Your task to perform on an android device: Show me productivity apps on the Play Store Image 0: 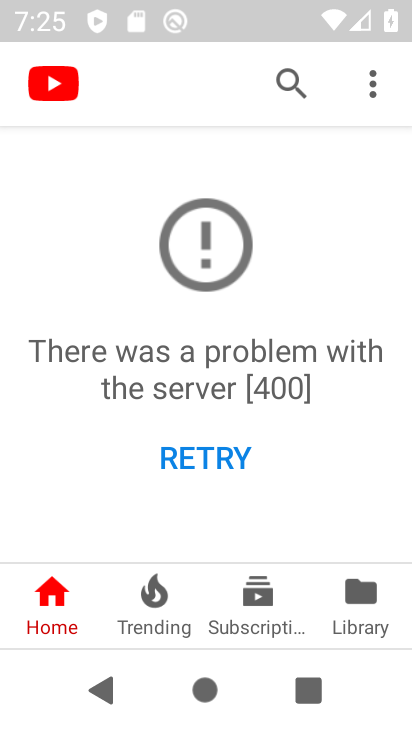
Step 0: press home button
Your task to perform on an android device: Show me productivity apps on the Play Store Image 1: 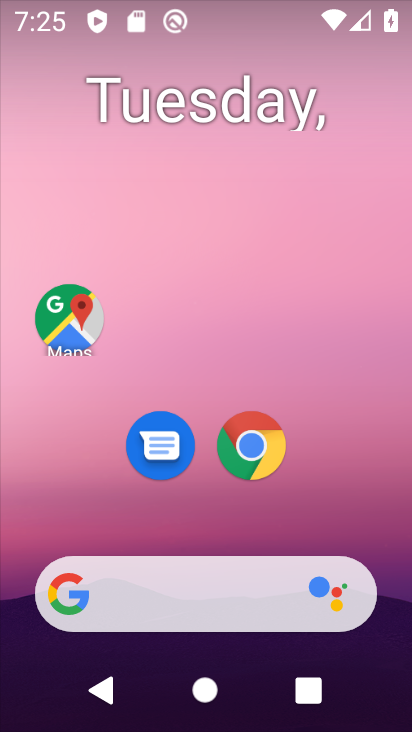
Step 1: drag from (307, 517) to (209, 29)
Your task to perform on an android device: Show me productivity apps on the Play Store Image 2: 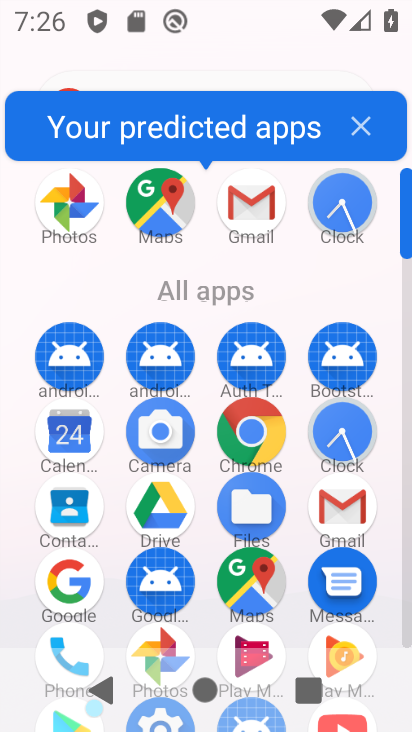
Step 2: click (360, 132)
Your task to perform on an android device: Show me productivity apps on the Play Store Image 3: 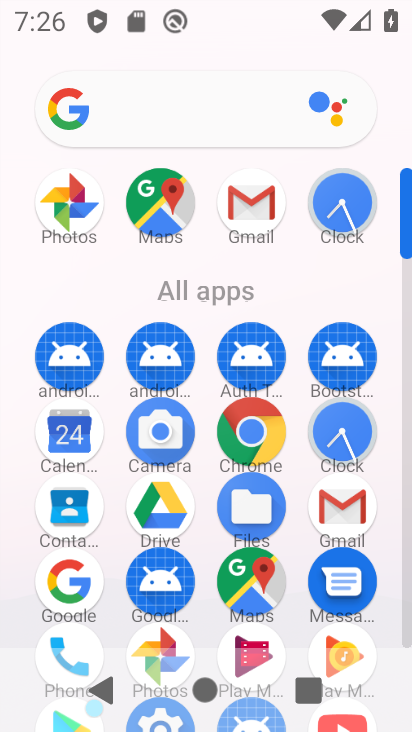
Step 3: drag from (209, 616) to (237, 77)
Your task to perform on an android device: Show me productivity apps on the Play Store Image 4: 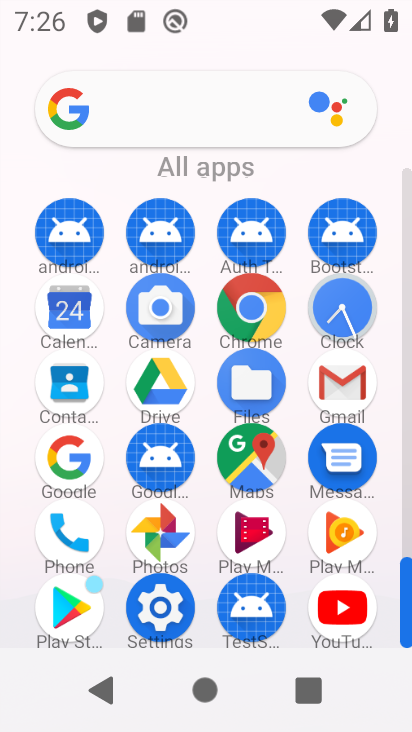
Step 4: click (61, 605)
Your task to perform on an android device: Show me productivity apps on the Play Store Image 5: 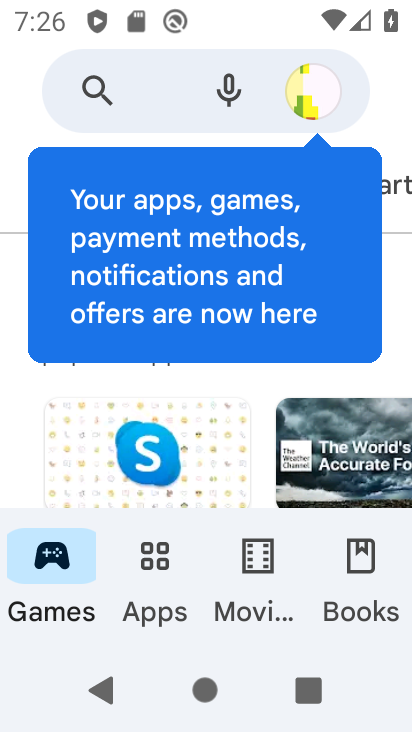
Step 5: click (401, 176)
Your task to perform on an android device: Show me productivity apps on the Play Store Image 6: 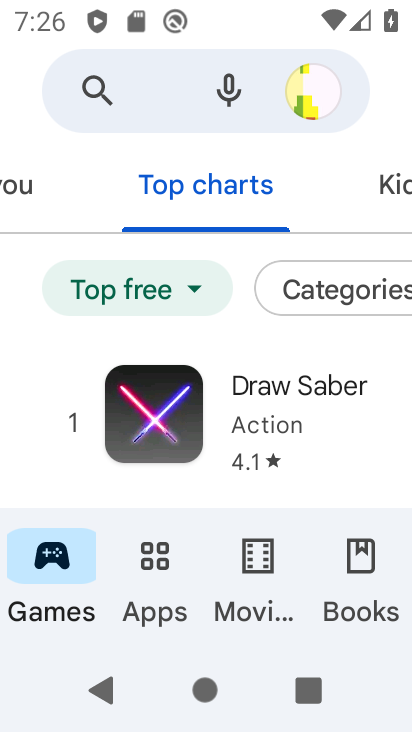
Step 6: drag from (383, 192) to (2, 198)
Your task to perform on an android device: Show me productivity apps on the Play Store Image 7: 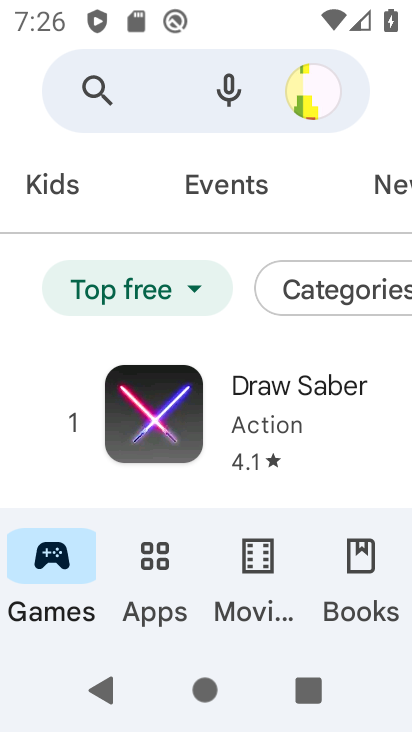
Step 7: drag from (283, 189) to (14, 157)
Your task to perform on an android device: Show me productivity apps on the Play Store Image 8: 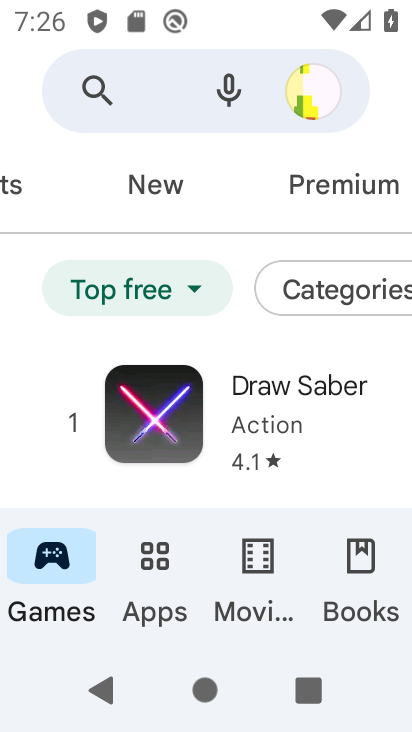
Step 8: drag from (352, 195) to (15, 154)
Your task to perform on an android device: Show me productivity apps on the Play Store Image 9: 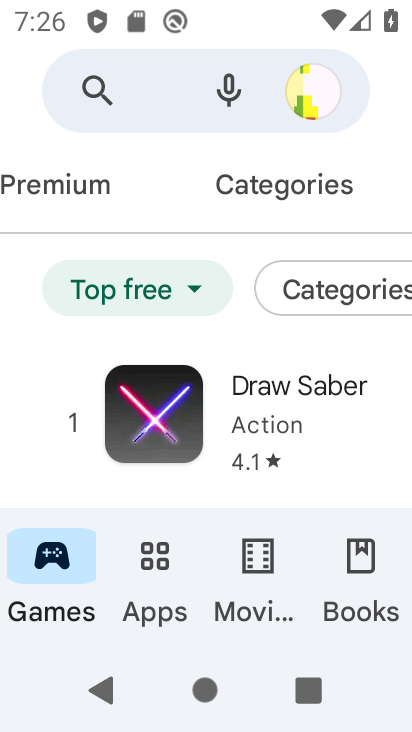
Step 9: drag from (327, 206) to (3, 159)
Your task to perform on an android device: Show me productivity apps on the Play Store Image 10: 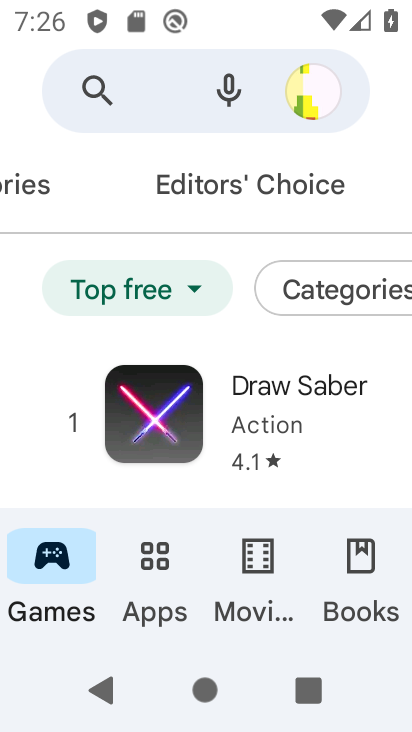
Step 10: drag from (332, 192) to (8, 183)
Your task to perform on an android device: Show me productivity apps on the Play Store Image 11: 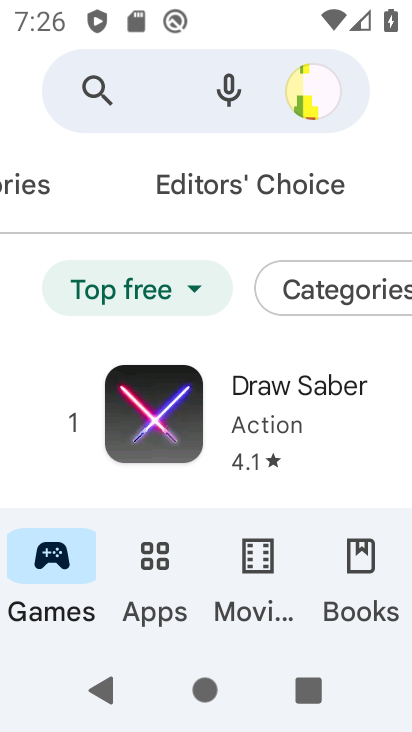
Step 11: drag from (52, 172) to (140, 190)
Your task to perform on an android device: Show me productivity apps on the Play Store Image 12: 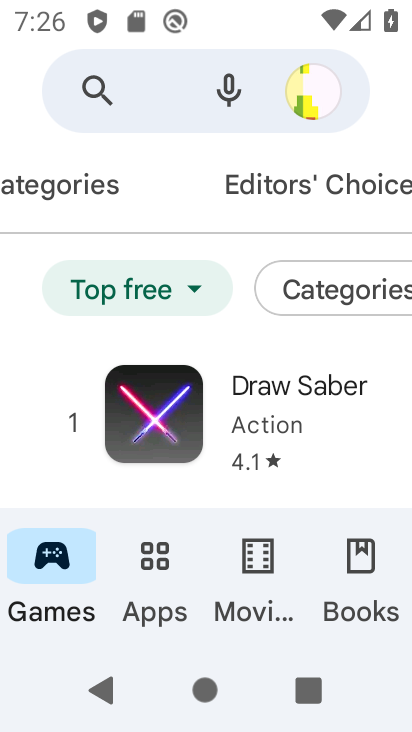
Step 12: click (28, 188)
Your task to perform on an android device: Show me productivity apps on the Play Store Image 13: 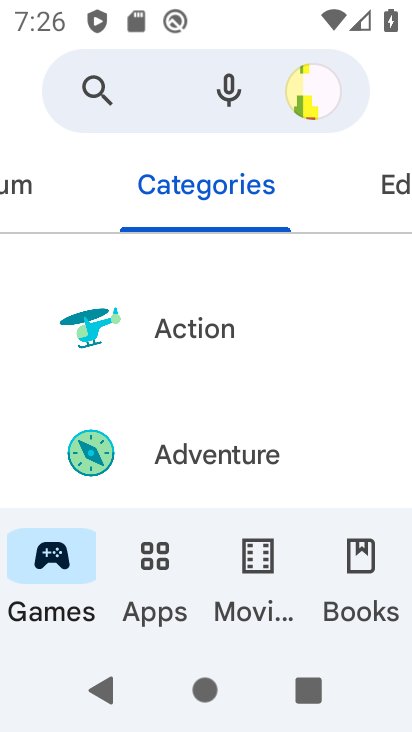
Step 13: click (166, 600)
Your task to perform on an android device: Show me productivity apps on the Play Store Image 14: 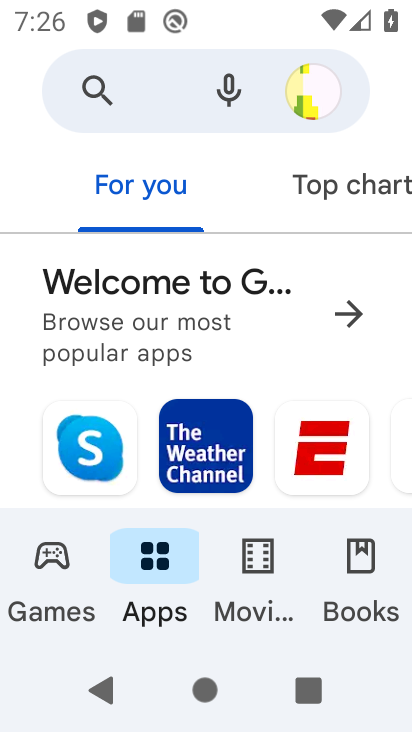
Step 14: drag from (319, 196) to (67, 185)
Your task to perform on an android device: Show me productivity apps on the Play Store Image 15: 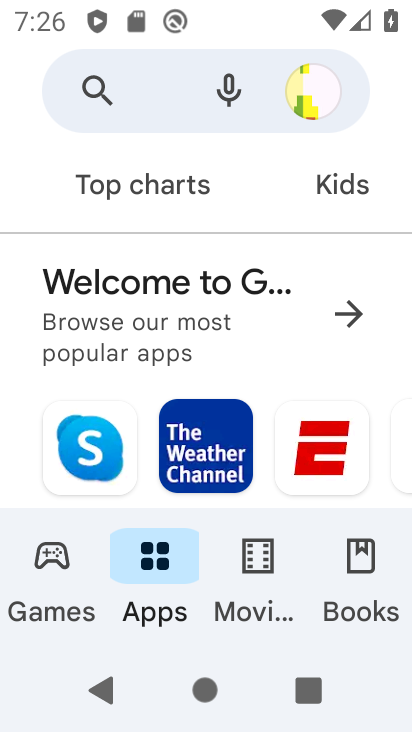
Step 15: drag from (294, 185) to (45, 185)
Your task to perform on an android device: Show me productivity apps on the Play Store Image 16: 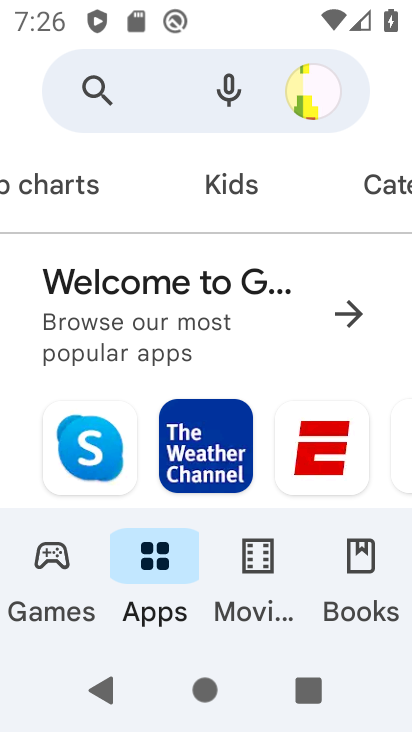
Step 16: drag from (313, 202) to (38, 213)
Your task to perform on an android device: Show me productivity apps on the Play Store Image 17: 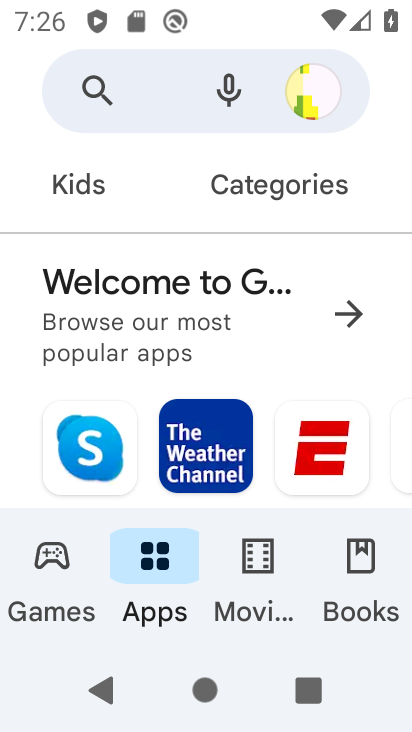
Step 17: click (276, 189)
Your task to perform on an android device: Show me productivity apps on the Play Store Image 18: 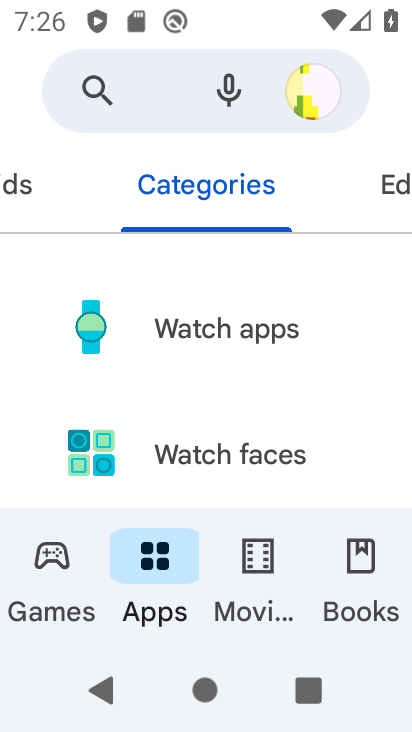
Step 18: drag from (202, 471) to (201, 250)
Your task to perform on an android device: Show me productivity apps on the Play Store Image 19: 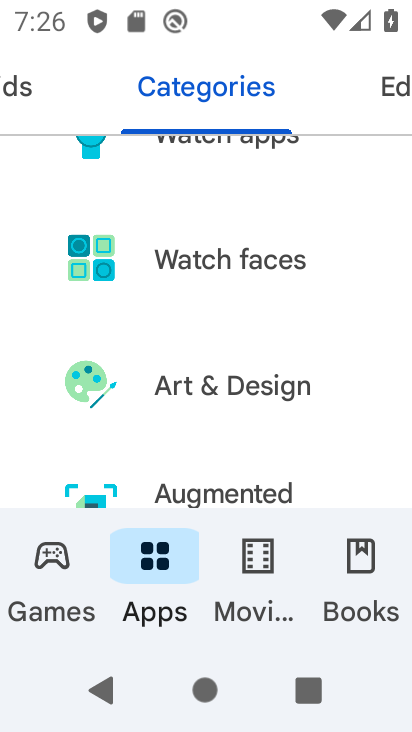
Step 19: drag from (214, 448) to (247, 233)
Your task to perform on an android device: Show me productivity apps on the Play Store Image 20: 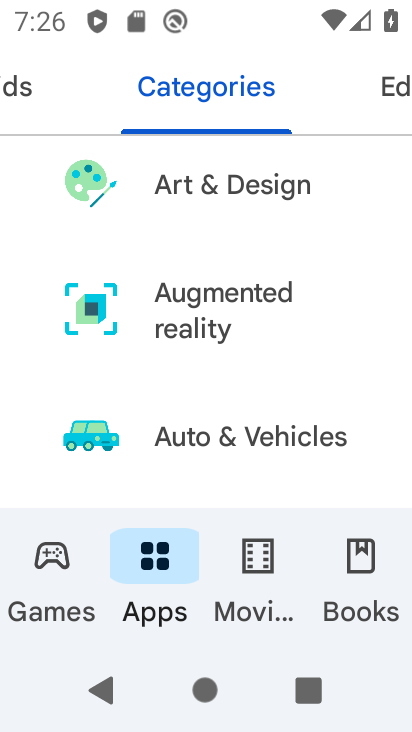
Step 20: drag from (232, 455) to (229, 68)
Your task to perform on an android device: Show me productivity apps on the Play Store Image 21: 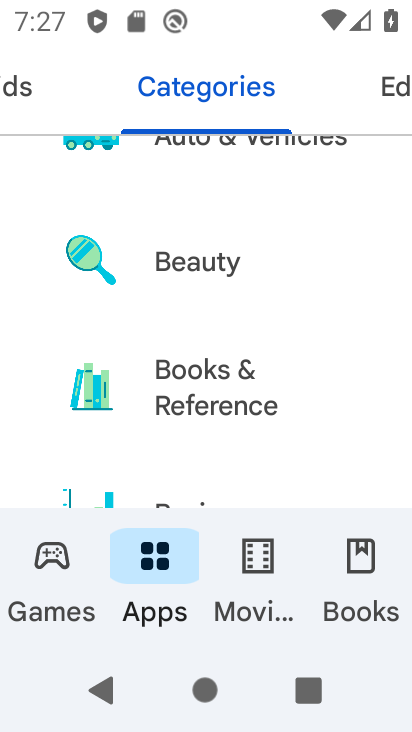
Step 21: drag from (196, 474) to (196, 190)
Your task to perform on an android device: Show me productivity apps on the Play Store Image 22: 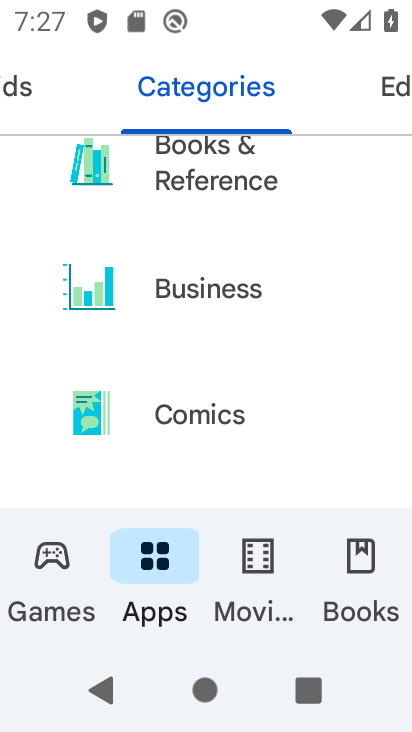
Step 22: drag from (219, 431) to (226, 92)
Your task to perform on an android device: Show me productivity apps on the Play Store Image 23: 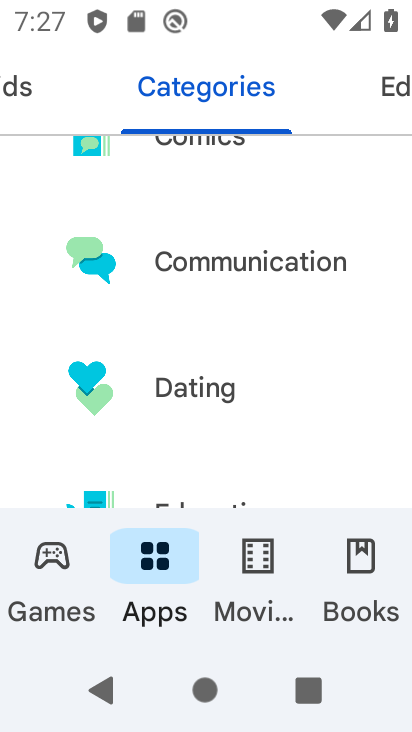
Step 23: drag from (201, 463) to (225, 191)
Your task to perform on an android device: Show me productivity apps on the Play Store Image 24: 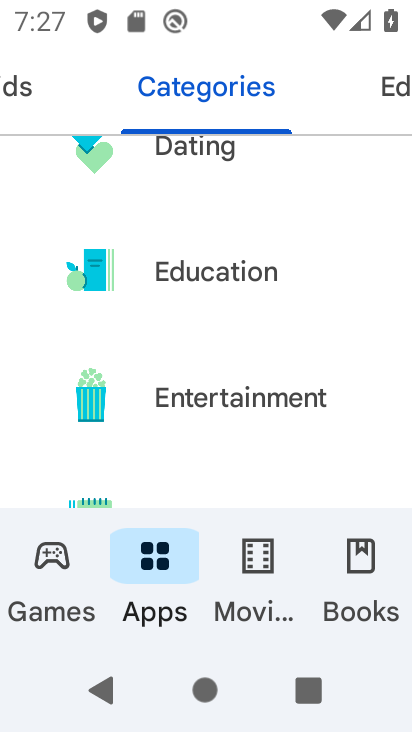
Step 24: drag from (223, 440) to (221, 187)
Your task to perform on an android device: Show me productivity apps on the Play Store Image 25: 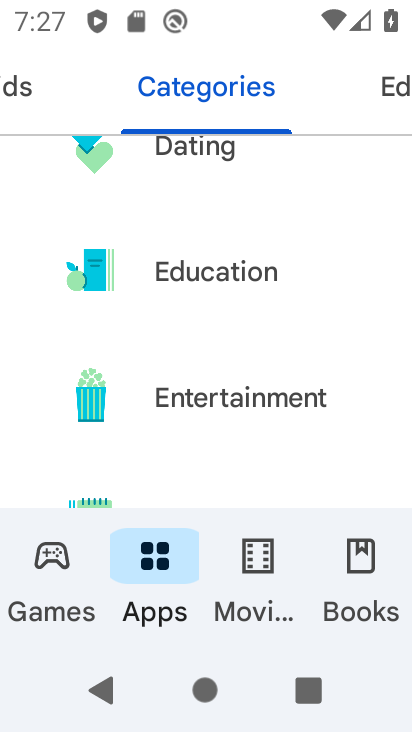
Step 25: drag from (186, 426) to (188, 145)
Your task to perform on an android device: Show me productivity apps on the Play Store Image 26: 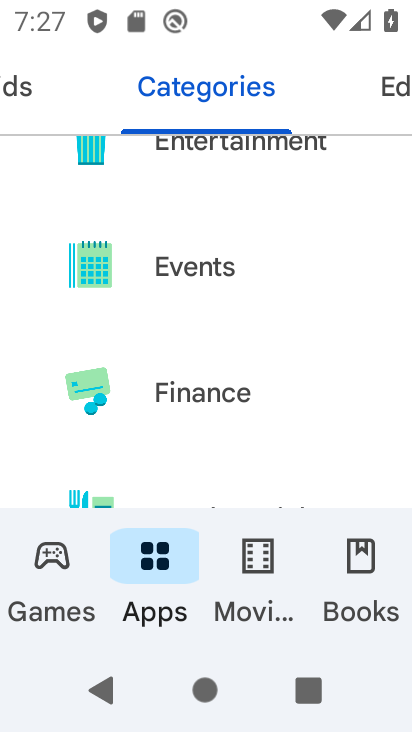
Step 26: drag from (215, 418) to (230, 45)
Your task to perform on an android device: Show me productivity apps on the Play Store Image 27: 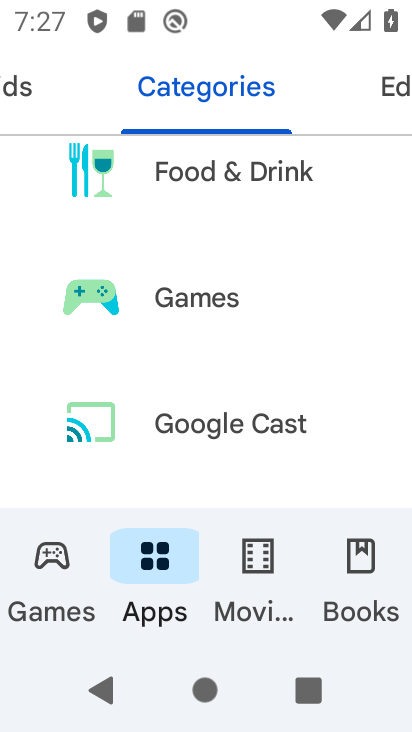
Step 27: drag from (204, 444) to (210, 64)
Your task to perform on an android device: Show me productivity apps on the Play Store Image 28: 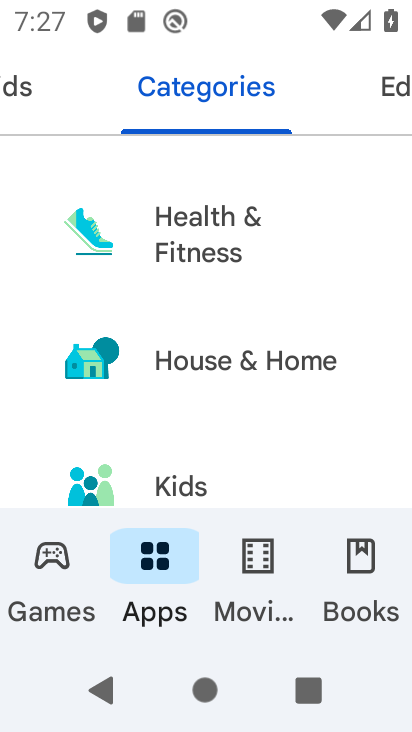
Step 28: drag from (235, 445) to (250, 101)
Your task to perform on an android device: Show me productivity apps on the Play Store Image 29: 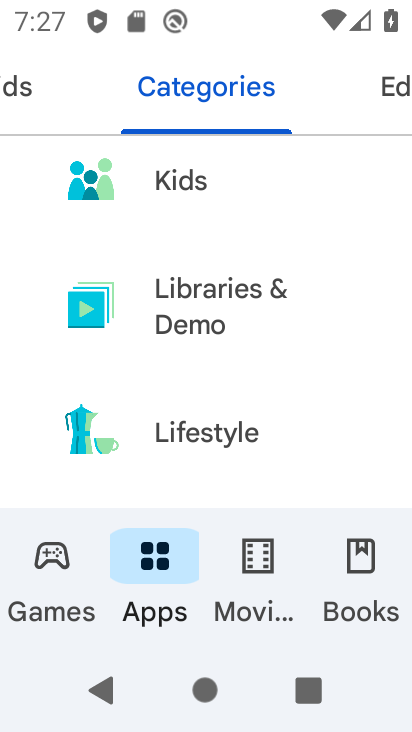
Step 29: drag from (187, 493) to (196, 148)
Your task to perform on an android device: Show me productivity apps on the Play Store Image 30: 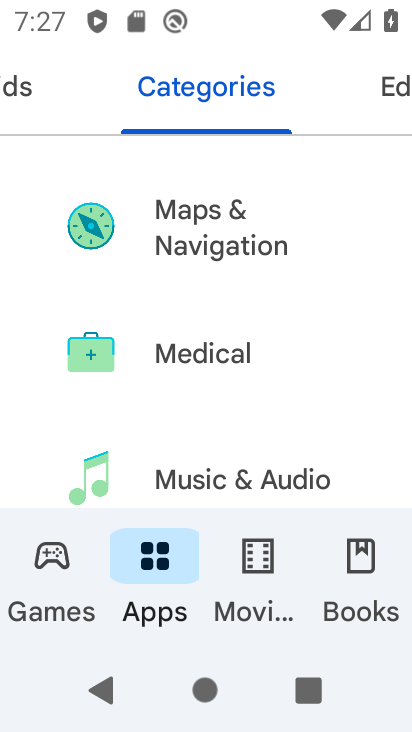
Step 30: drag from (190, 415) to (190, 63)
Your task to perform on an android device: Show me productivity apps on the Play Store Image 31: 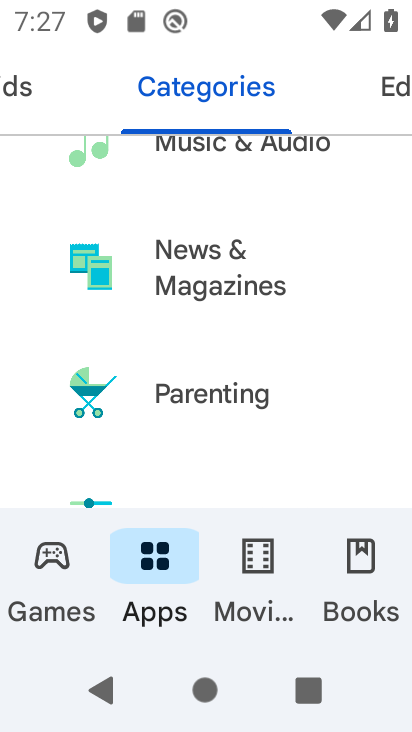
Step 31: drag from (185, 419) to (194, 188)
Your task to perform on an android device: Show me productivity apps on the Play Store Image 32: 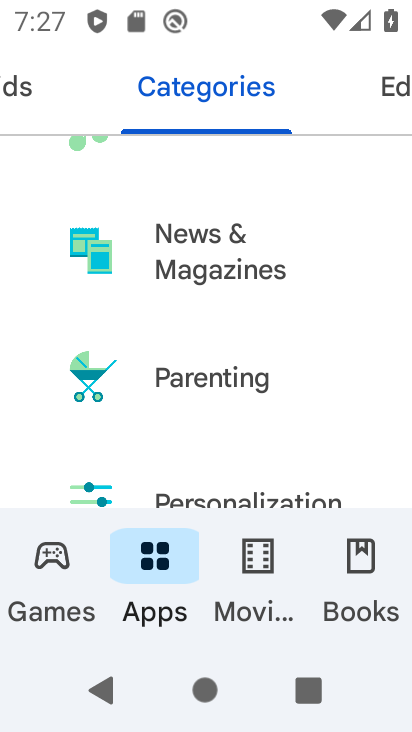
Step 32: click (301, 221)
Your task to perform on an android device: Show me productivity apps on the Play Store Image 33: 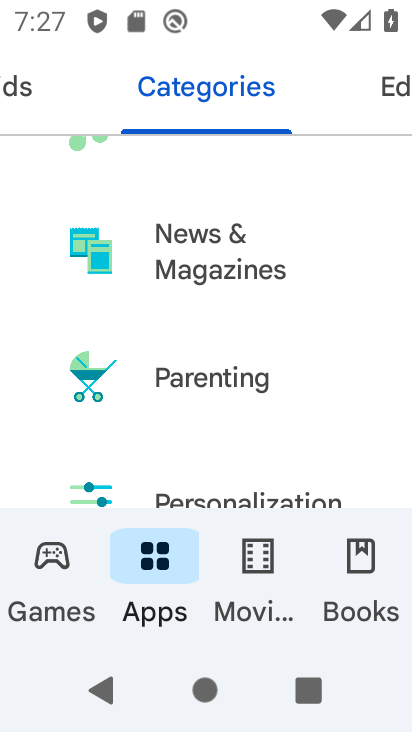
Step 33: drag from (223, 464) to (217, 193)
Your task to perform on an android device: Show me productivity apps on the Play Store Image 34: 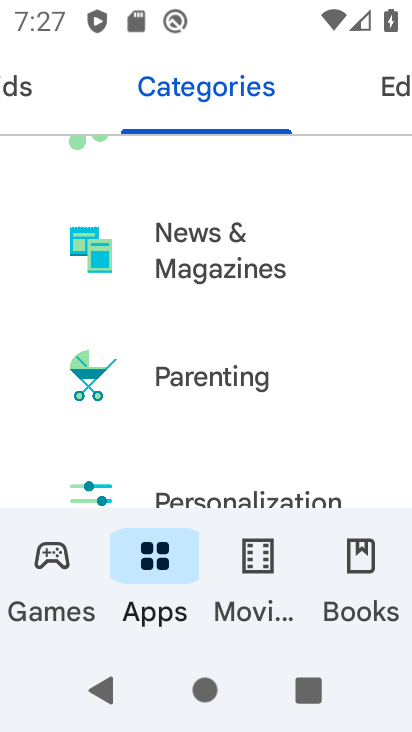
Step 34: drag from (216, 432) to (213, 210)
Your task to perform on an android device: Show me productivity apps on the Play Store Image 35: 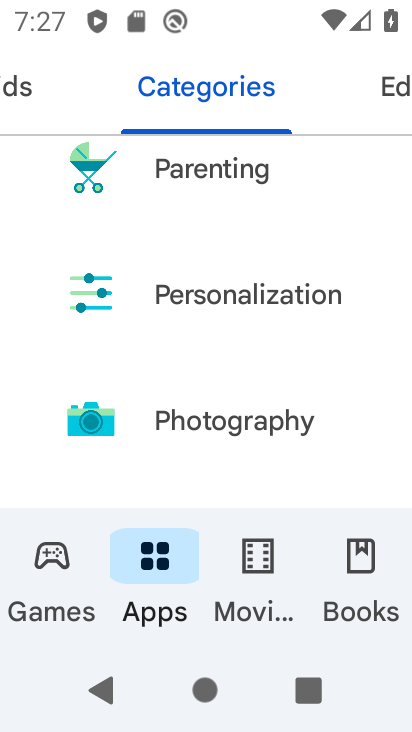
Step 35: drag from (213, 444) to (213, 176)
Your task to perform on an android device: Show me productivity apps on the Play Store Image 36: 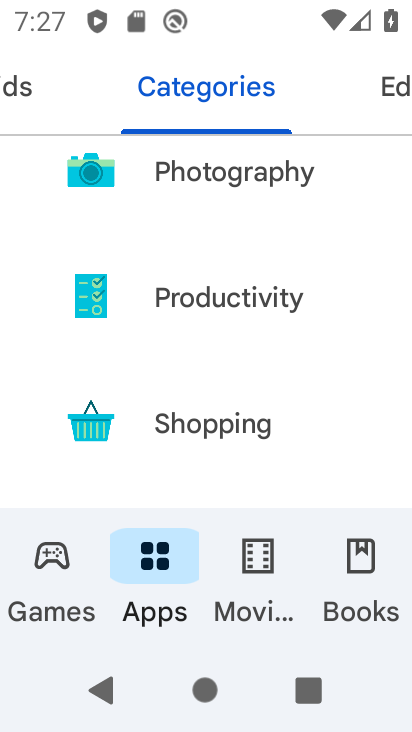
Step 36: click (209, 306)
Your task to perform on an android device: Show me productivity apps on the Play Store Image 37: 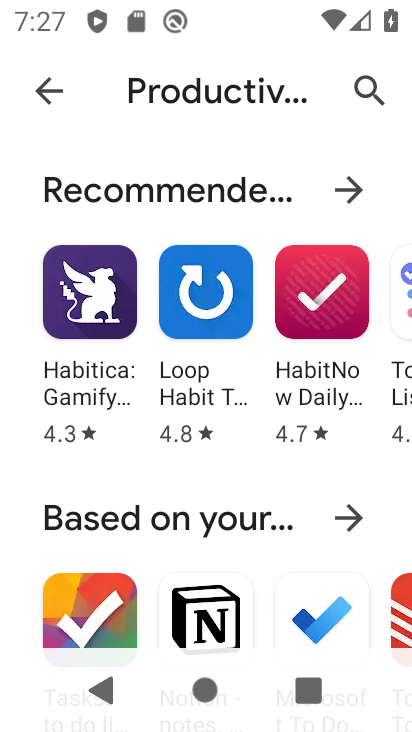
Step 37: task complete